Your task to perform on an android device: Open the web browser Image 0: 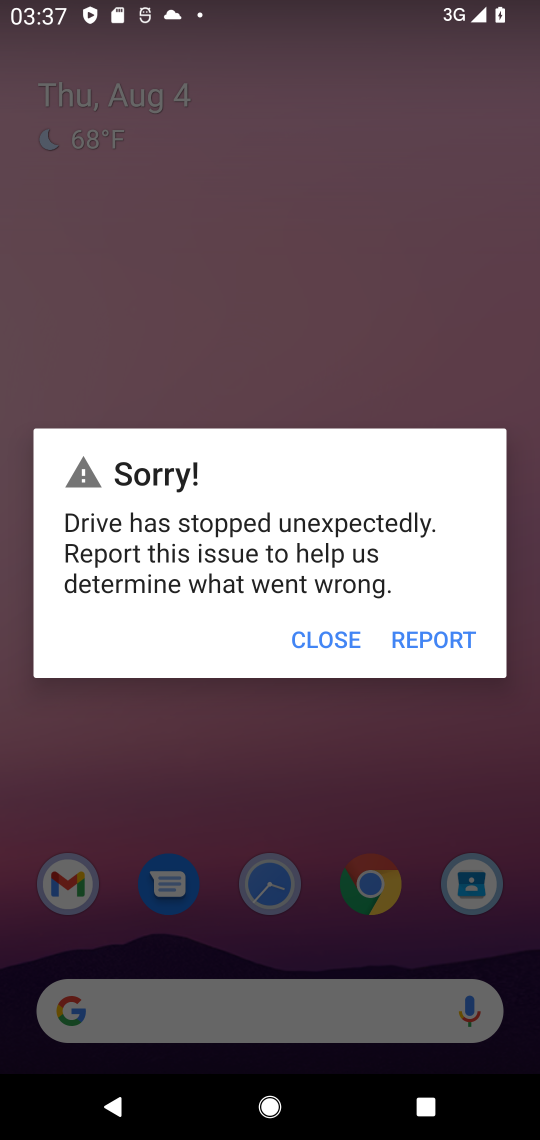
Step 0: press home button
Your task to perform on an android device: Open the web browser Image 1: 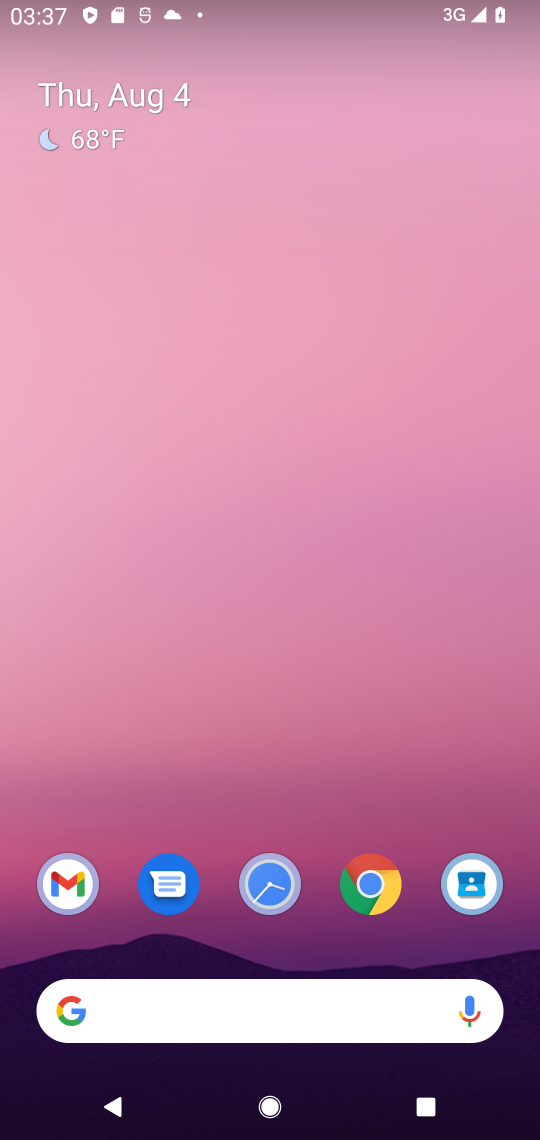
Step 1: drag from (409, 600) to (428, 278)
Your task to perform on an android device: Open the web browser Image 2: 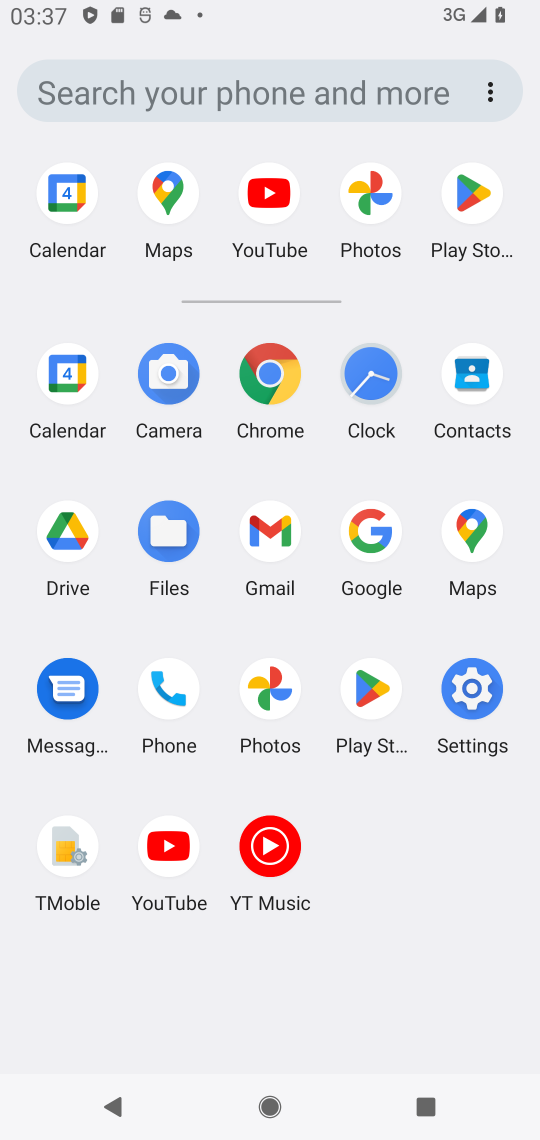
Step 2: click (272, 379)
Your task to perform on an android device: Open the web browser Image 3: 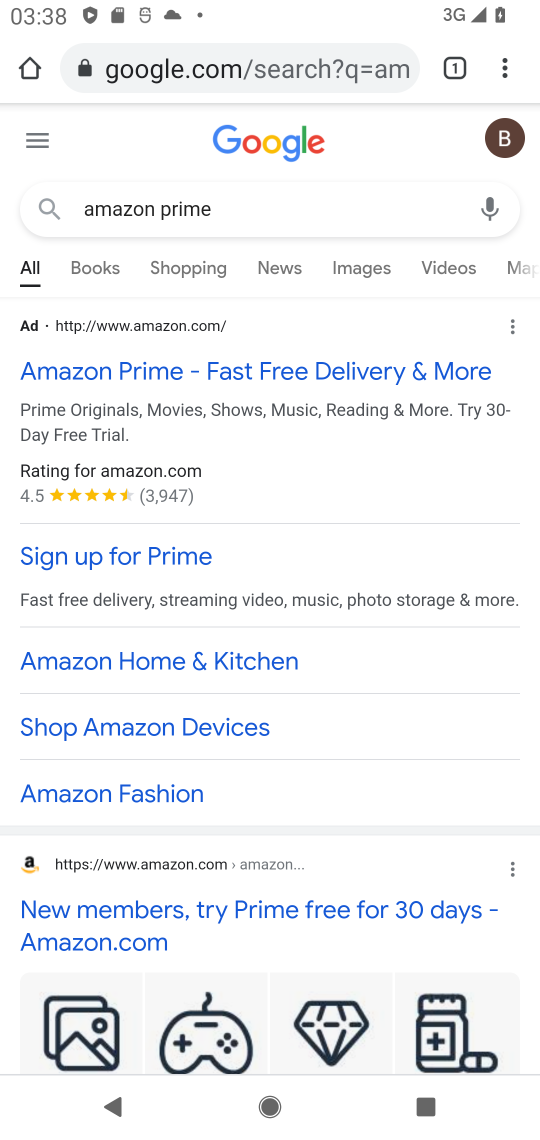
Step 3: task complete